Your task to perform on an android device: Open internet settings Image 0: 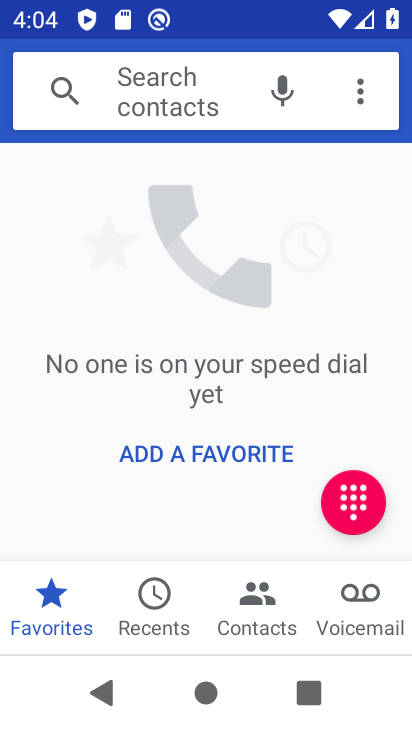
Step 0: press home button
Your task to perform on an android device: Open internet settings Image 1: 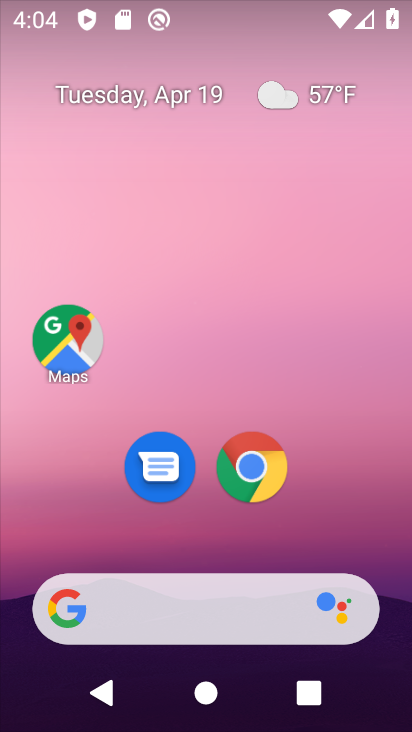
Step 1: drag from (227, 531) to (187, 41)
Your task to perform on an android device: Open internet settings Image 2: 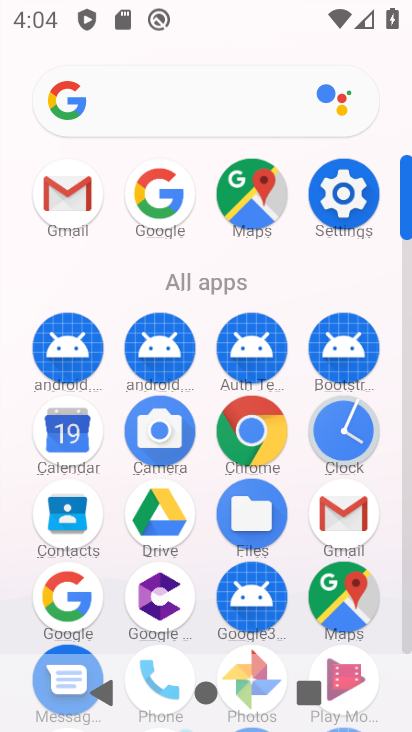
Step 2: click (341, 199)
Your task to perform on an android device: Open internet settings Image 3: 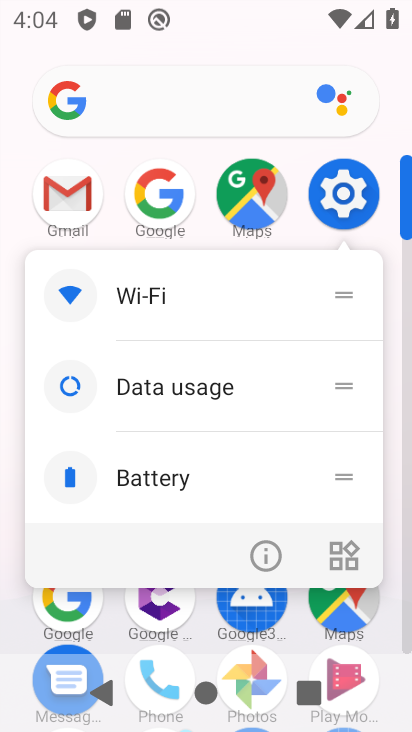
Step 3: click (340, 198)
Your task to perform on an android device: Open internet settings Image 4: 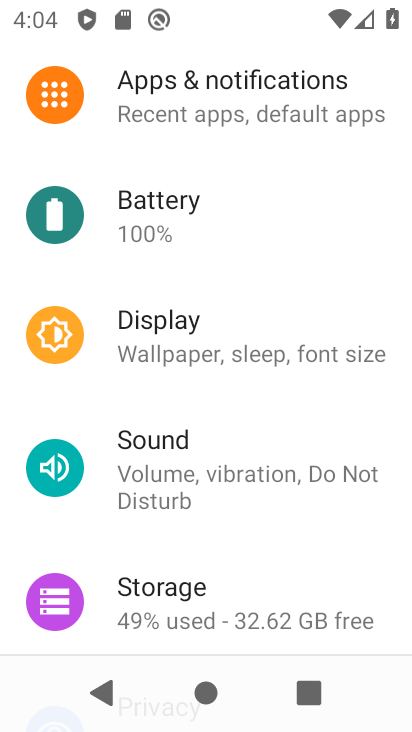
Step 4: drag from (277, 374) to (273, 653)
Your task to perform on an android device: Open internet settings Image 5: 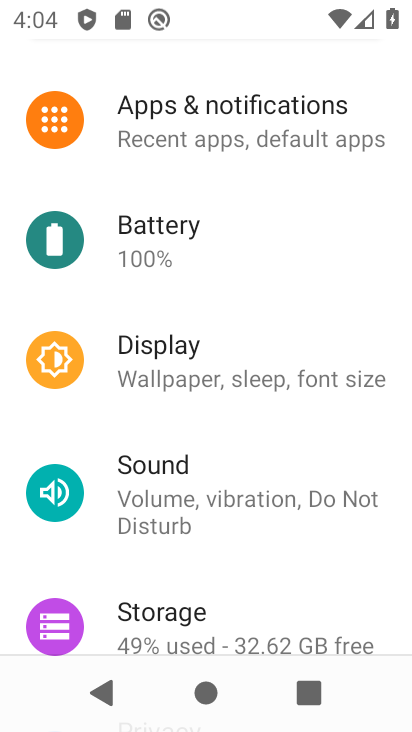
Step 5: drag from (222, 267) to (226, 539)
Your task to perform on an android device: Open internet settings Image 6: 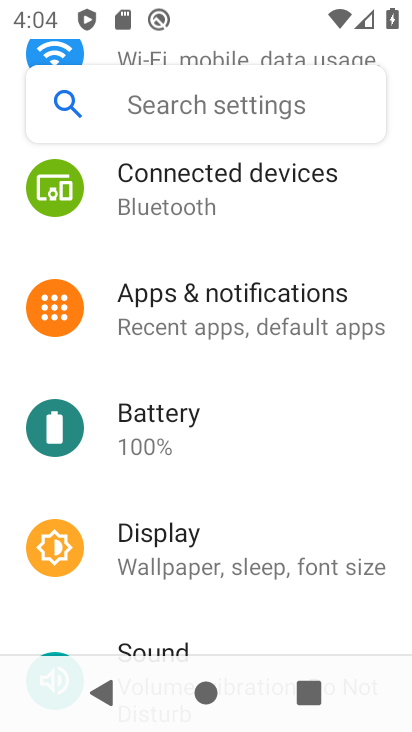
Step 6: drag from (193, 296) to (222, 648)
Your task to perform on an android device: Open internet settings Image 7: 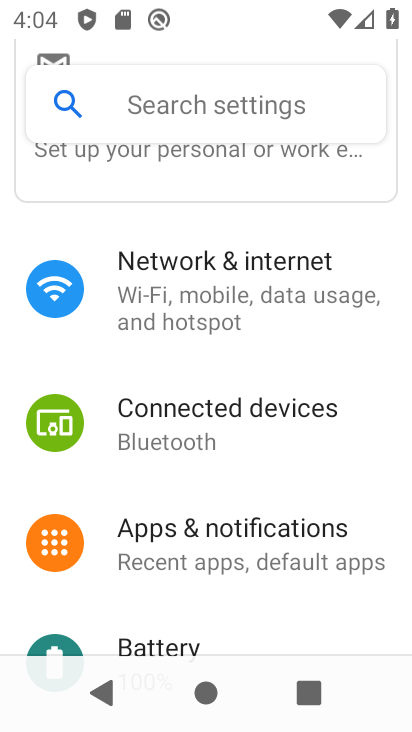
Step 7: click (208, 288)
Your task to perform on an android device: Open internet settings Image 8: 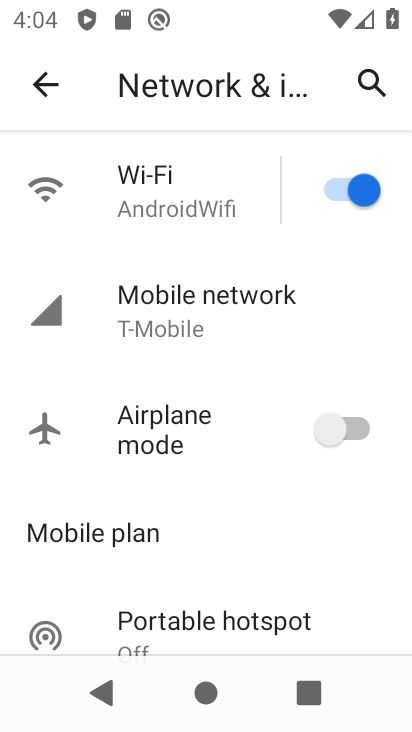
Step 8: click (207, 297)
Your task to perform on an android device: Open internet settings Image 9: 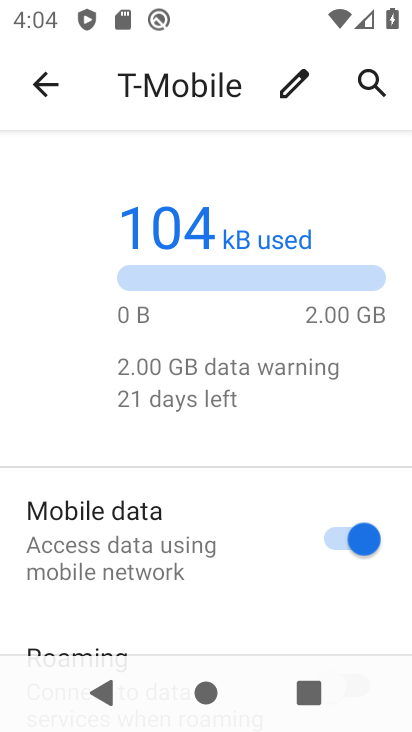
Step 9: task complete